Your task to perform on an android device: Open Chrome and go to settings Image 0: 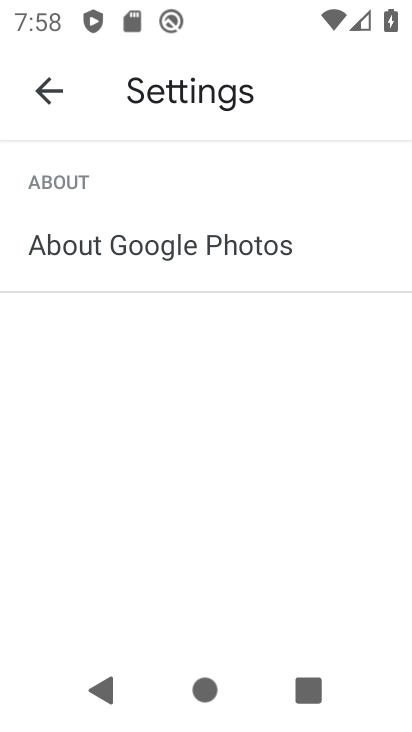
Step 0: press home button
Your task to perform on an android device: Open Chrome and go to settings Image 1: 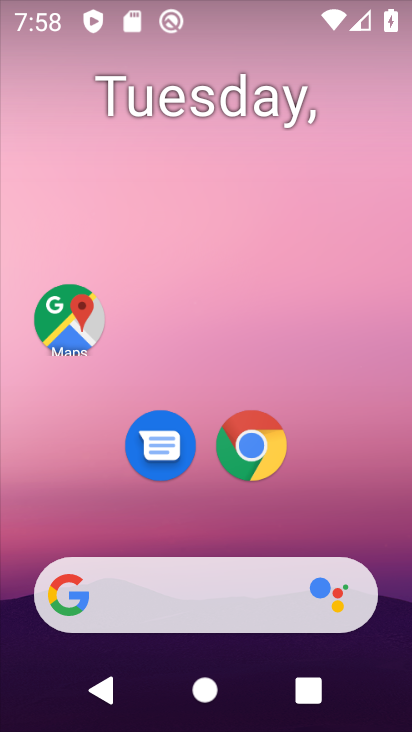
Step 1: click (261, 454)
Your task to perform on an android device: Open Chrome and go to settings Image 2: 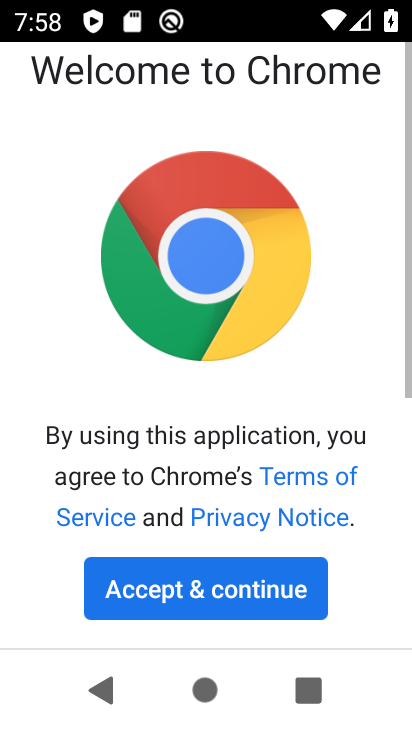
Step 2: click (172, 583)
Your task to perform on an android device: Open Chrome and go to settings Image 3: 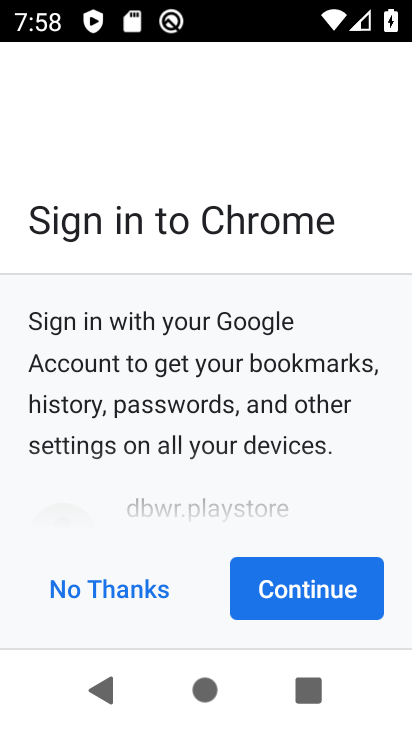
Step 3: click (304, 583)
Your task to perform on an android device: Open Chrome and go to settings Image 4: 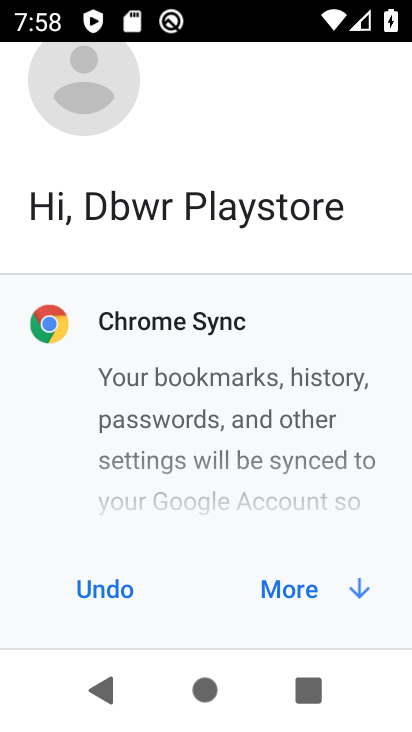
Step 4: click (300, 593)
Your task to perform on an android device: Open Chrome and go to settings Image 5: 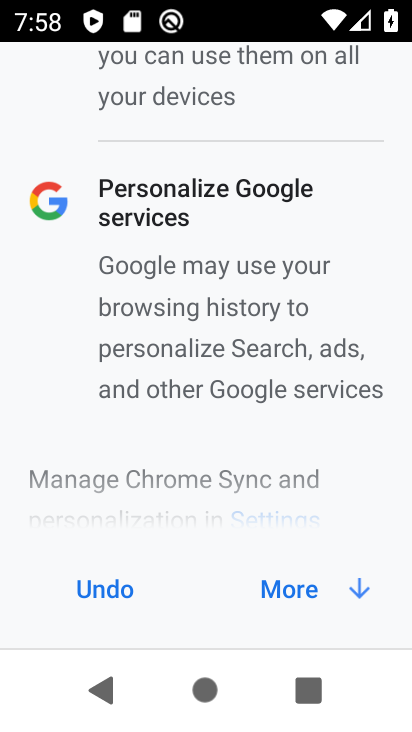
Step 5: click (288, 598)
Your task to perform on an android device: Open Chrome and go to settings Image 6: 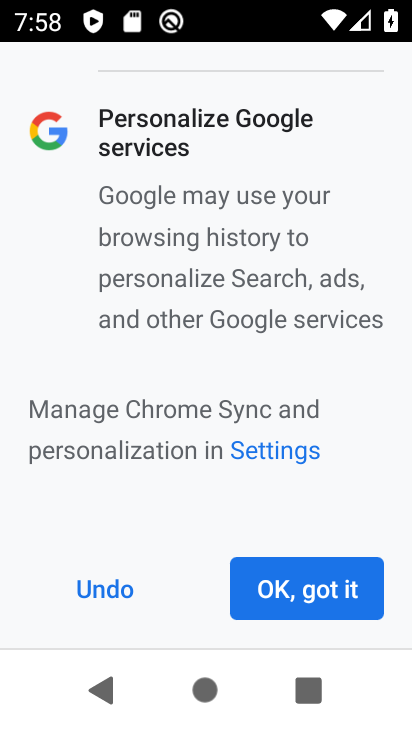
Step 6: click (288, 598)
Your task to perform on an android device: Open Chrome and go to settings Image 7: 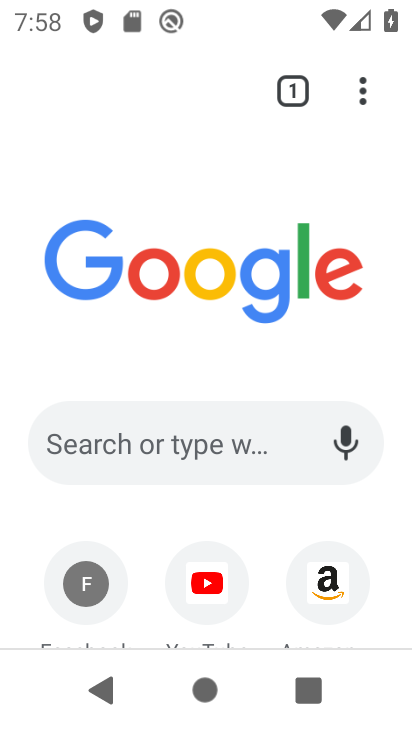
Step 7: click (355, 81)
Your task to perform on an android device: Open Chrome and go to settings Image 8: 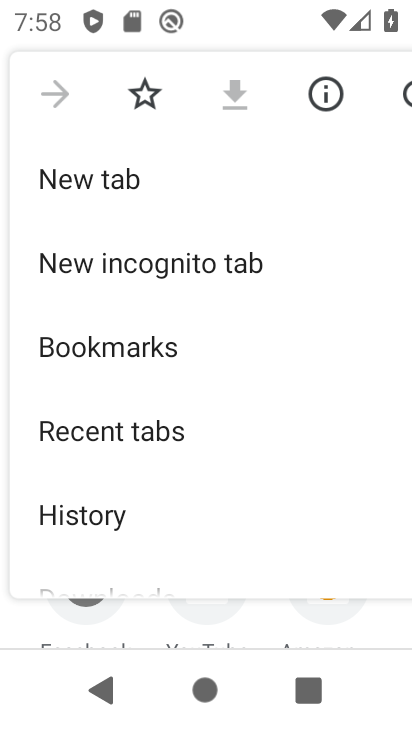
Step 8: drag from (91, 542) to (114, 248)
Your task to perform on an android device: Open Chrome and go to settings Image 9: 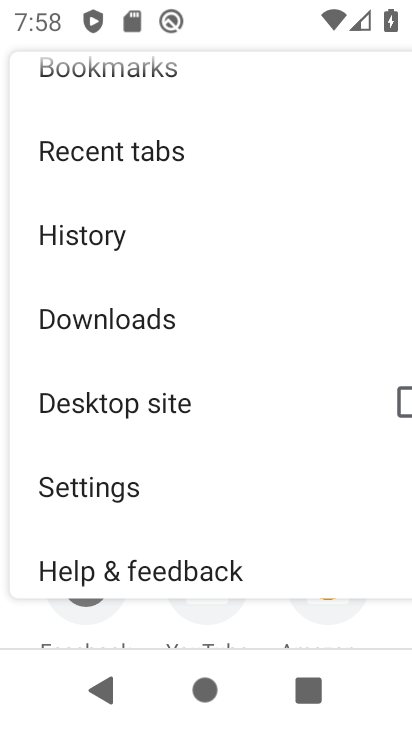
Step 9: drag from (99, 544) to (126, 303)
Your task to perform on an android device: Open Chrome and go to settings Image 10: 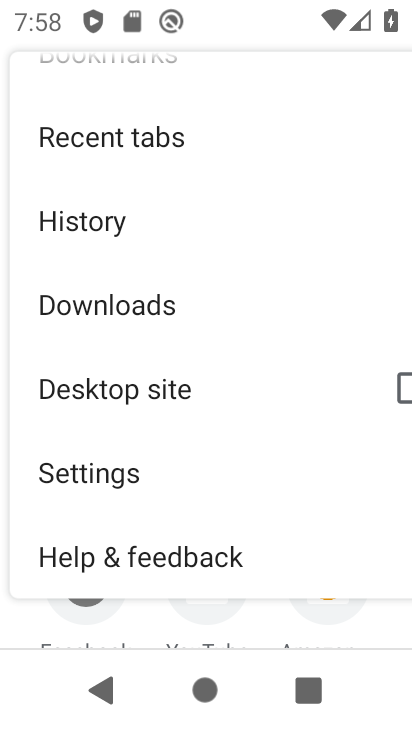
Step 10: click (99, 482)
Your task to perform on an android device: Open Chrome and go to settings Image 11: 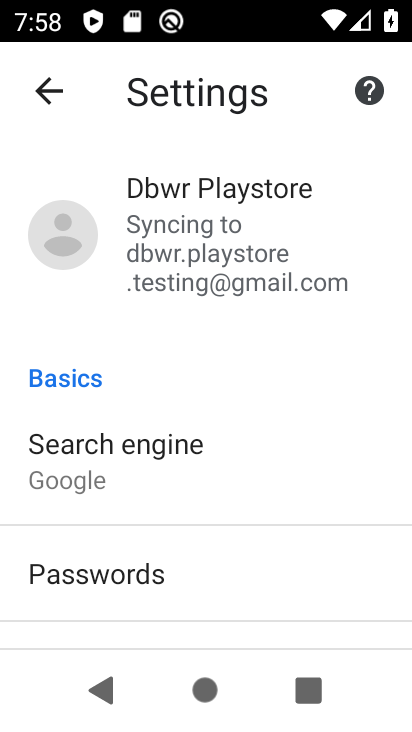
Step 11: task complete